Your task to perform on an android device: move an email to a new category in the gmail app Image 0: 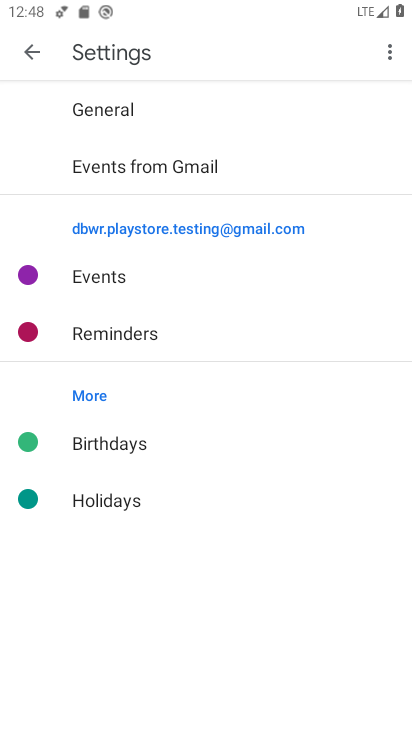
Step 0: press home button
Your task to perform on an android device: move an email to a new category in the gmail app Image 1: 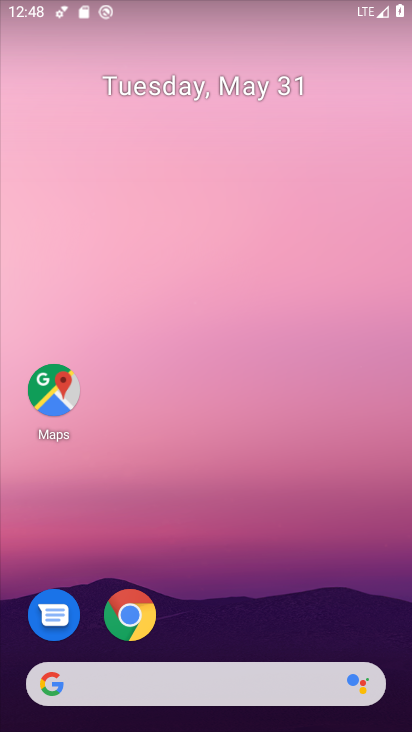
Step 1: drag from (231, 640) to (234, 493)
Your task to perform on an android device: move an email to a new category in the gmail app Image 2: 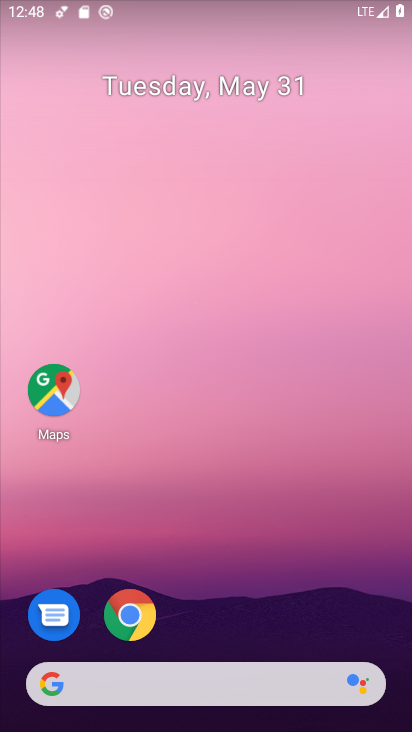
Step 2: drag from (204, 644) to (235, 33)
Your task to perform on an android device: move an email to a new category in the gmail app Image 3: 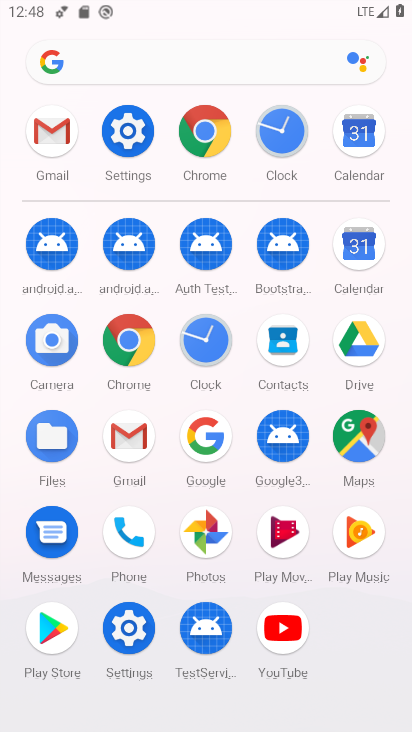
Step 3: click (115, 458)
Your task to perform on an android device: move an email to a new category in the gmail app Image 4: 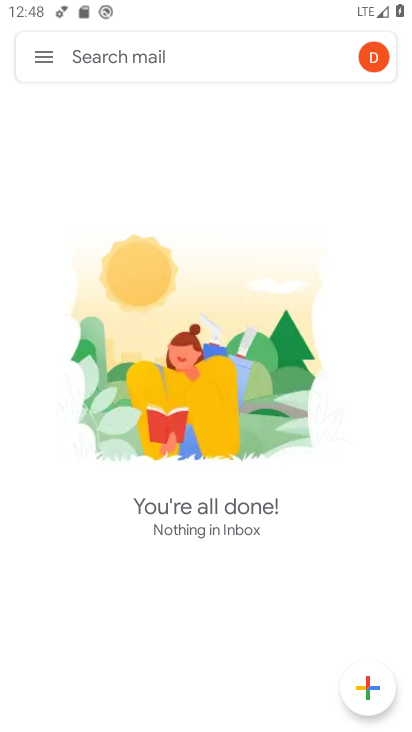
Step 4: click (41, 53)
Your task to perform on an android device: move an email to a new category in the gmail app Image 5: 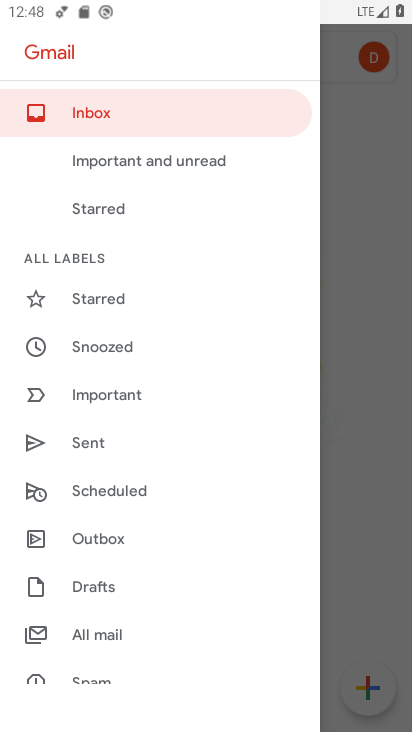
Step 5: click (103, 636)
Your task to perform on an android device: move an email to a new category in the gmail app Image 6: 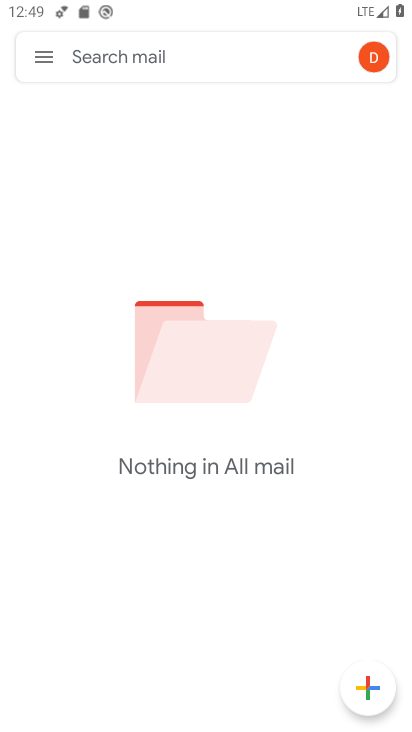
Step 6: task complete